Your task to perform on an android device: turn on showing notifications on the lock screen Image 0: 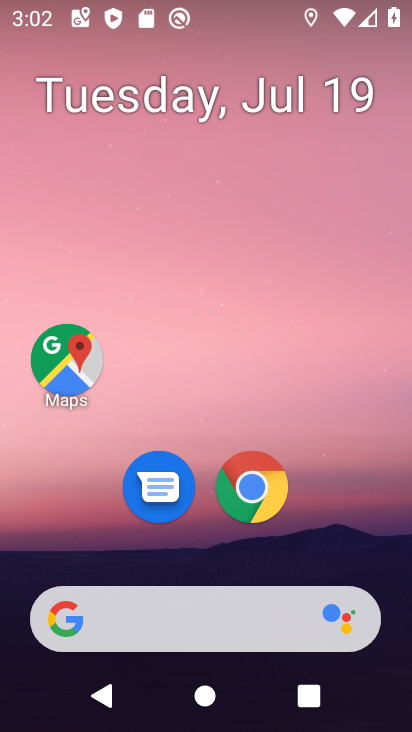
Step 0: drag from (196, 557) to (259, 3)
Your task to perform on an android device: turn on showing notifications on the lock screen Image 1: 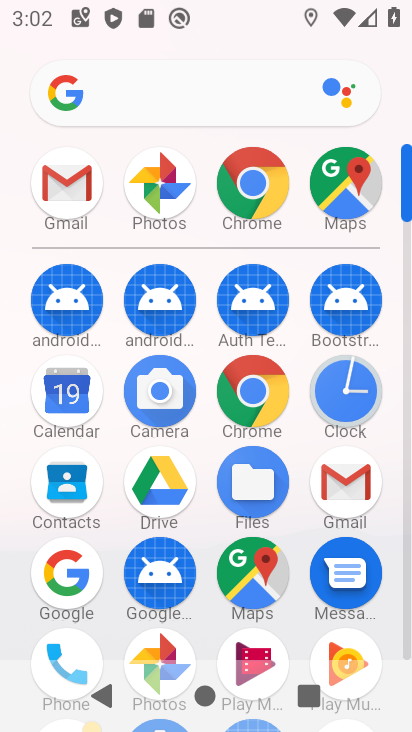
Step 1: drag from (237, 529) to (310, 29)
Your task to perform on an android device: turn on showing notifications on the lock screen Image 2: 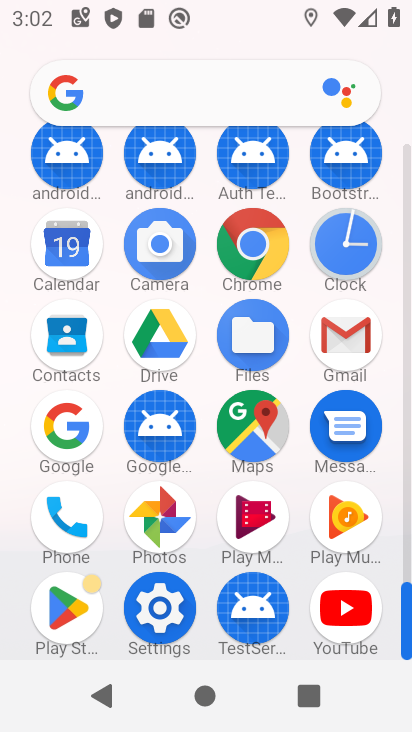
Step 2: click (163, 619)
Your task to perform on an android device: turn on showing notifications on the lock screen Image 3: 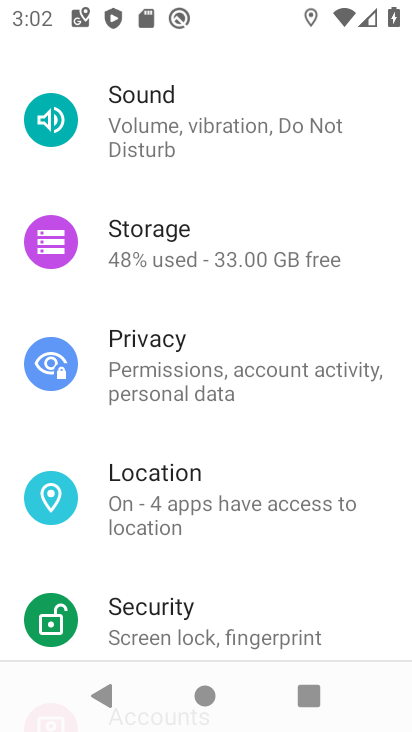
Step 3: drag from (200, 142) to (235, 729)
Your task to perform on an android device: turn on showing notifications on the lock screen Image 4: 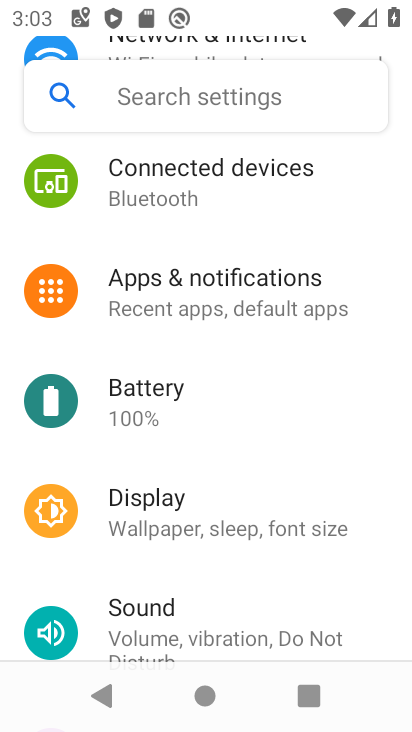
Step 4: click (194, 280)
Your task to perform on an android device: turn on showing notifications on the lock screen Image 5: 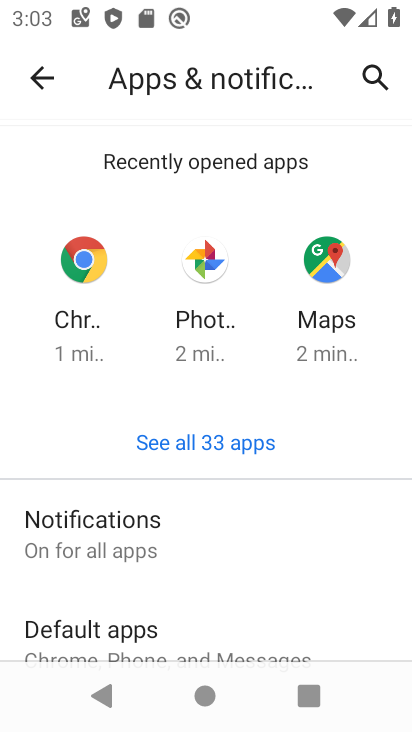
Step 5: click (117, 541)
Your task to perform on an android device: turn on showing notifications on the lock screen Image 6: 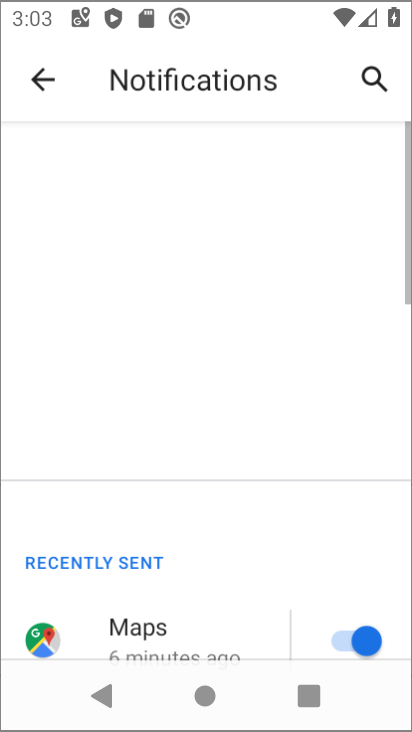
Step 6: drag from (135, 611) to (199, 179)
Your task to perform on an android device: turn on showing notifications on the lock screen Image 7: 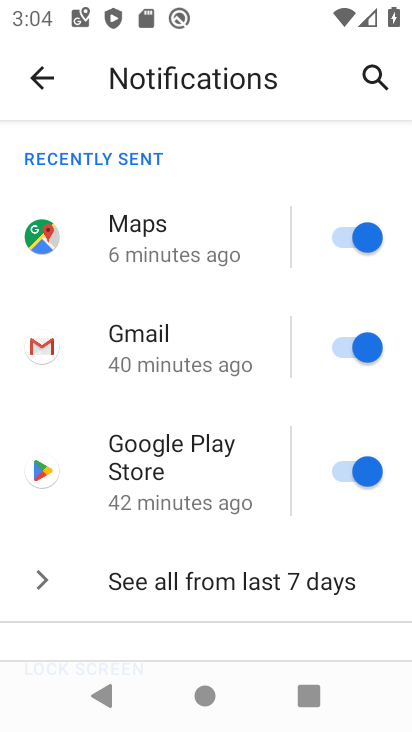
Step 7: drag from (161, 560) to (176, 154)
Your task to perform on an android device: turn on showing notifications on the lock screen Image 8: 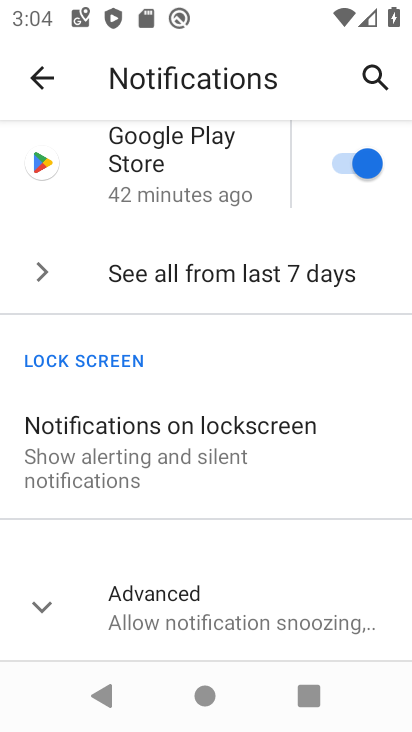
Step 8: click (192, 469)
Your task to perform on an android device: turn on showing notifications on the lock screen Image 9: 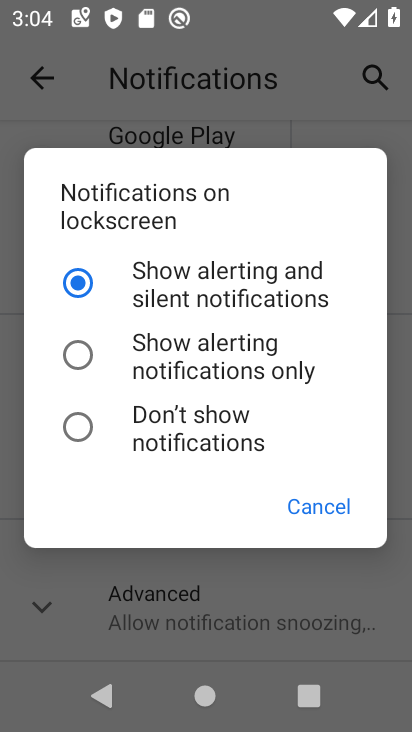
Step 9: click (98, 281)
Your task to perform on an android device: turn on showing notifications on the lock screen Image 10: 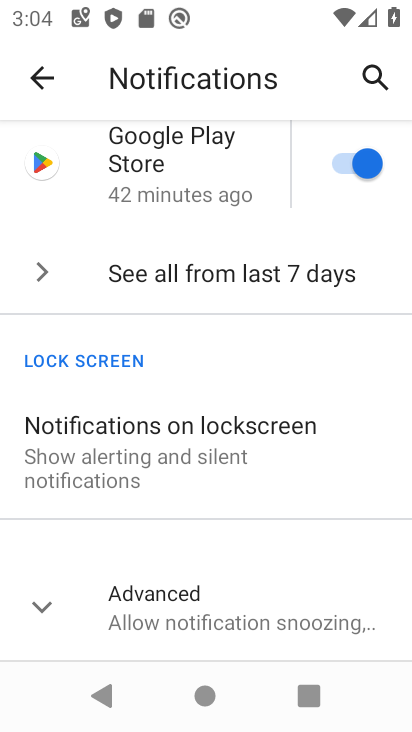
Step 10: task complete